Your task to perform on an android device: delete location history Image 0: 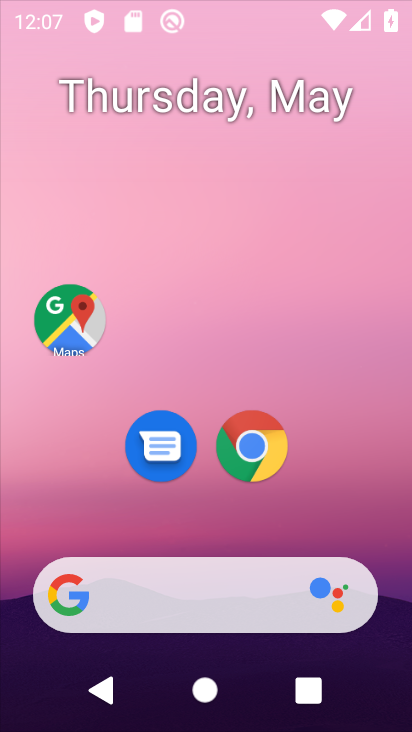
Step 0: press home button
Your task to perform on an android device: delete location history Image 1: 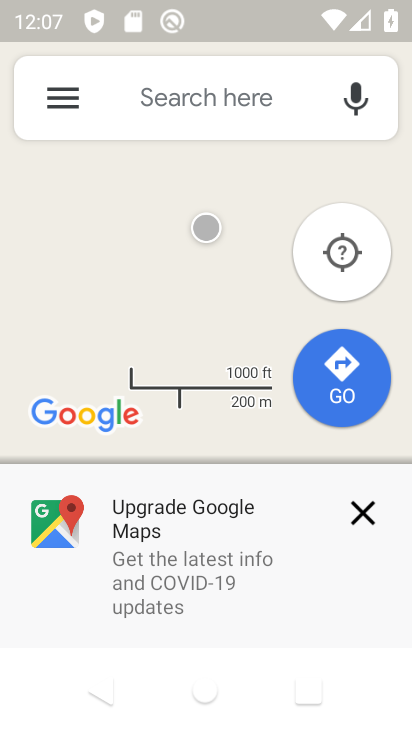
Step 1: click (94, 340)
Your task to perform on an android device: delete location history Image 2: 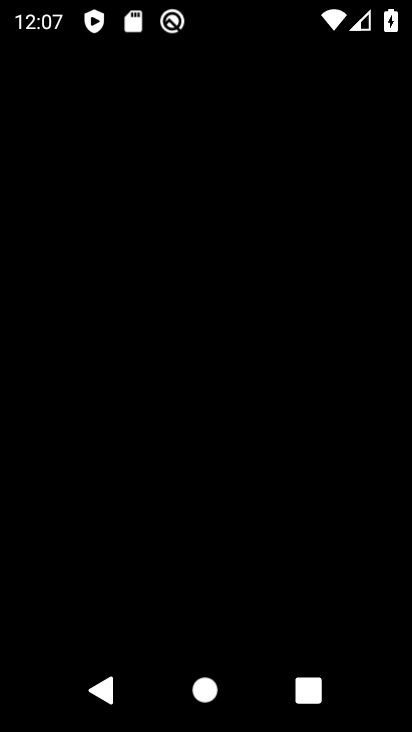
Step 2: click (95, 336)
Your task to perform on an android device: delete location history Image 3: 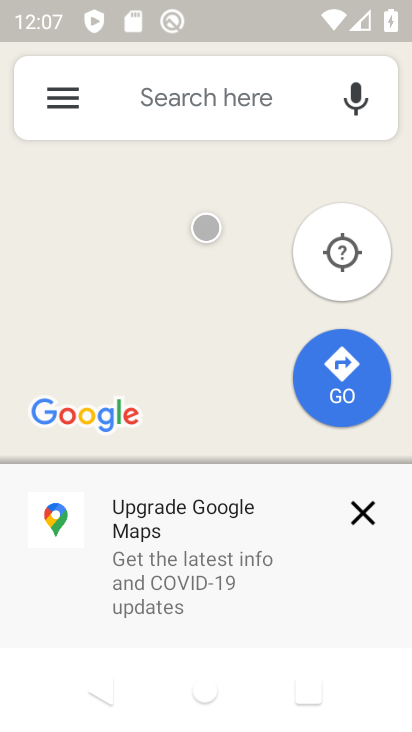
Step 3: click (54, 96)
Your task to perform on an android device: delete location history Image 4: 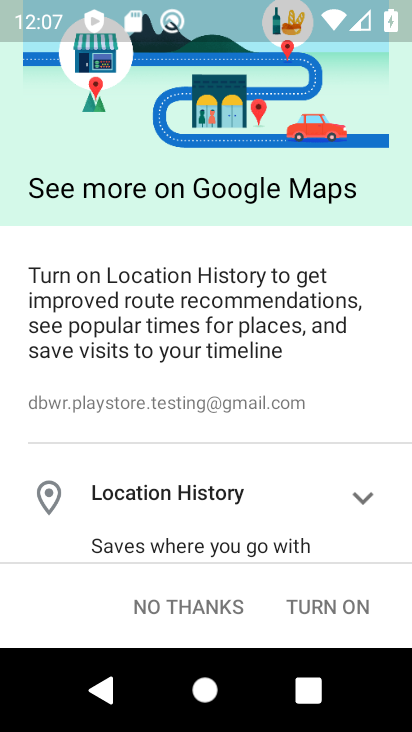
Step 4: click (161, 601)
Your task to perform on an android device: delete location history Image 5: 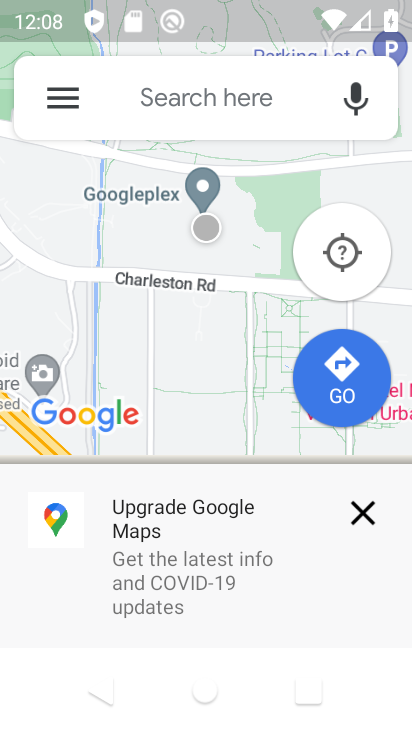
Step 5: click (46, 89)
Your task to perform on an android device: delete location history Image 6: 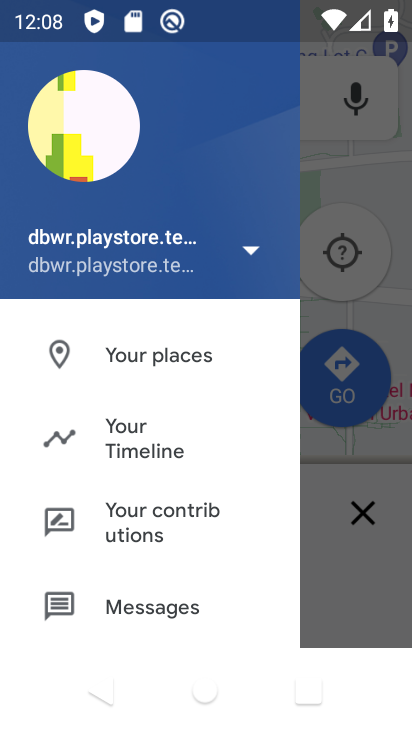
Step 6: click (164, 445)
Your task to perform on an android device: delete location history Image 7: 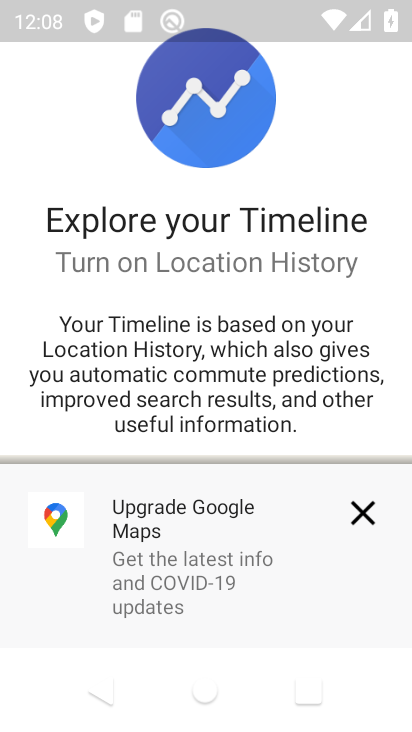
Step 7: click (364, 516)
Your task to perform on an android device: delete location history Image 8: 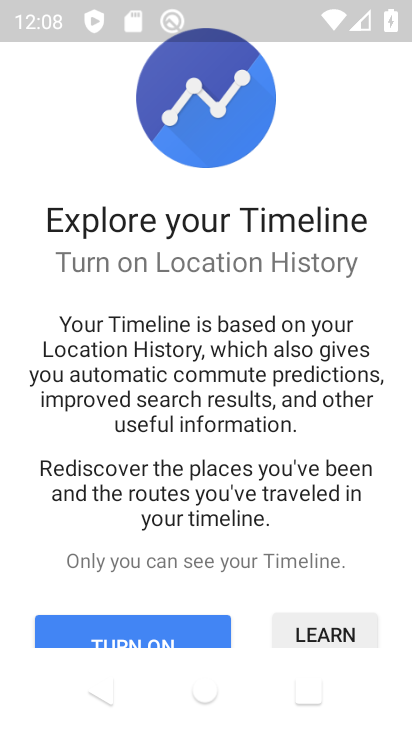
Step 8: drag from (278, 576) to (265, 255)
Your task to perform on an android device: delete location history Image 9: 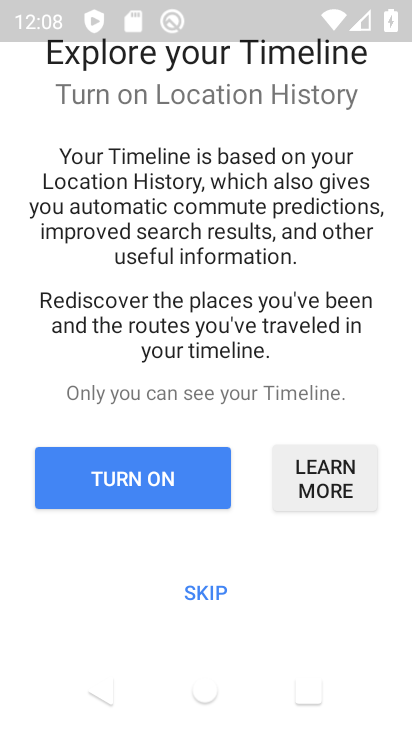
Step 9: click (200, 586)
Your task to perform on an android device: delete location history Image 10: 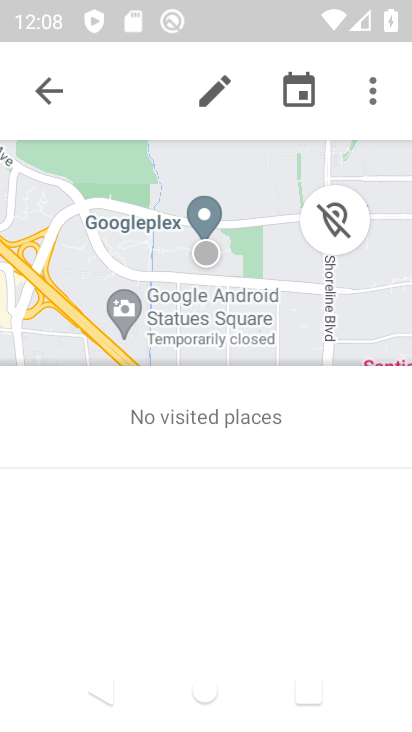
Step 10: click (363, 93)
Your task to perform on an android device: delete location history Image 11: 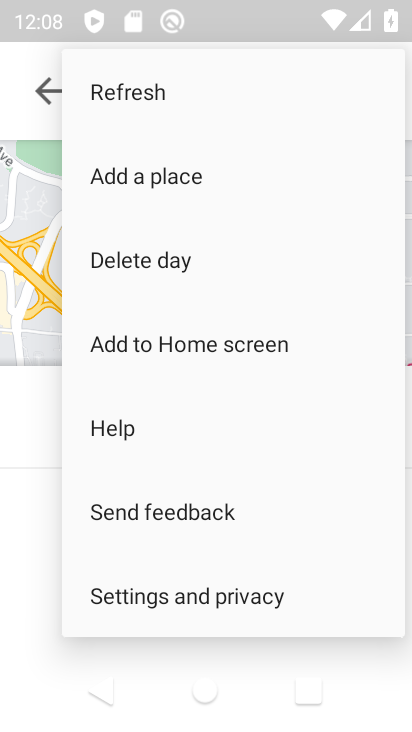
Step 11: click (186, 595)
Your task to perform on an android device: delete location history Image 12: 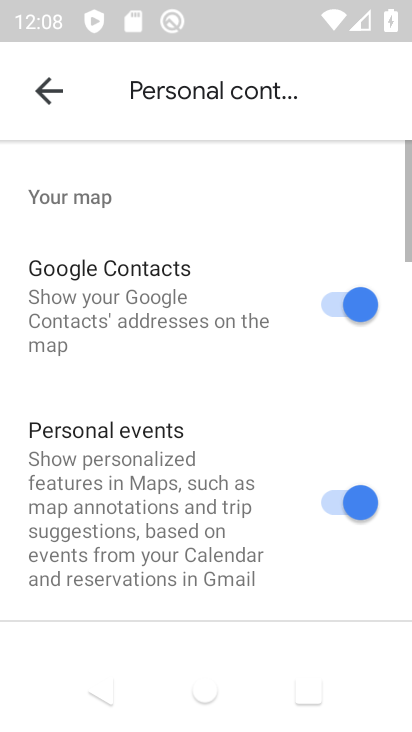
Step 12: drag from (211, 601) to (286, 57)
Your task to perform on an android device: delete location history Image 13: 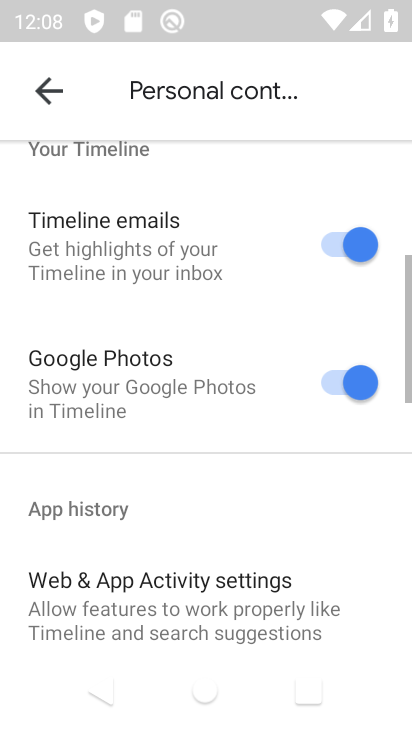
Step 13: drag from (286, 515) to (286, 170)
Your task to perform on an android device: delete location history Image 14: 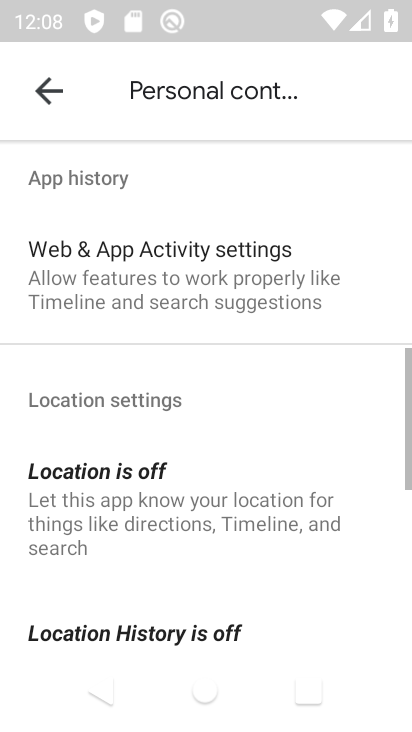
Step 14: drag from (286, 499) to (286, 265)
Your task to perform on an android device: delete location history Image 15: 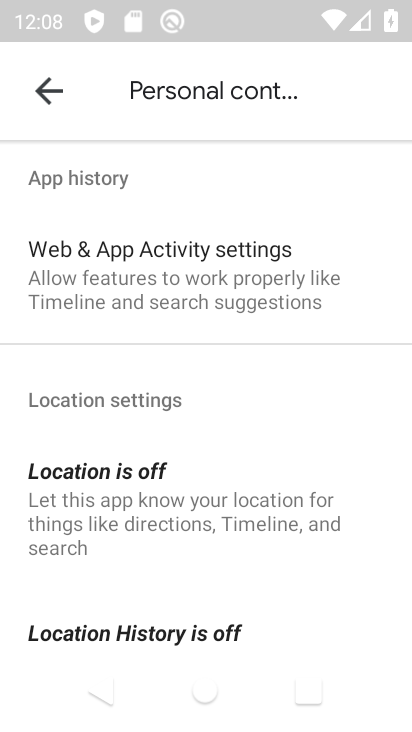
Step 15: drag from (276, 439) to (253, 79)
Your task to perform on an android device: delete location history Image 16: 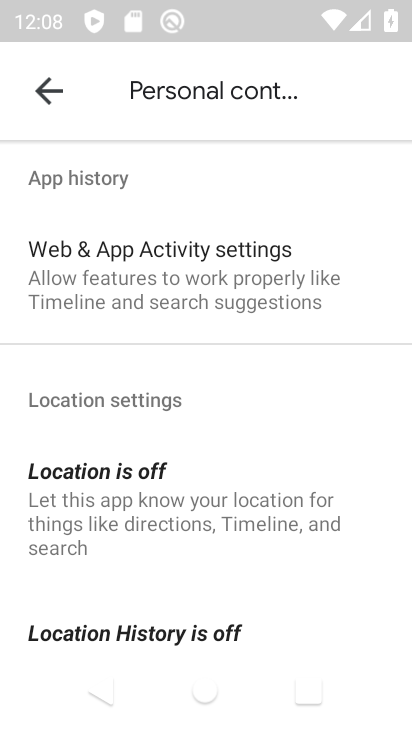
Step 16: drag from (223, 555) to (223, 104)
Your task to perform on an android device: delete location history Image 17: 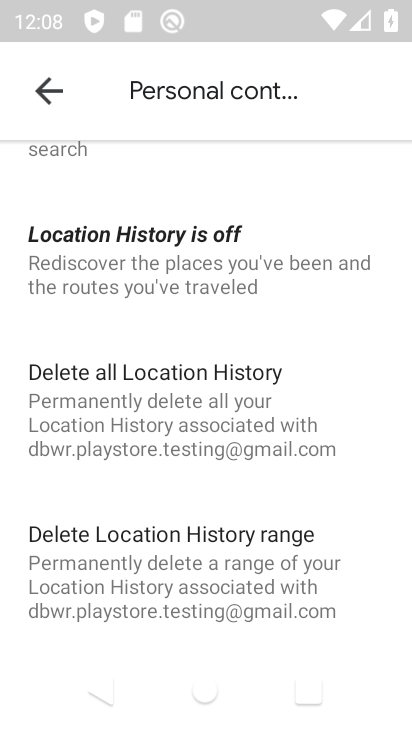
Step 17: click (216, 360)
Your task to perform on an android device: delete location history Image 18: 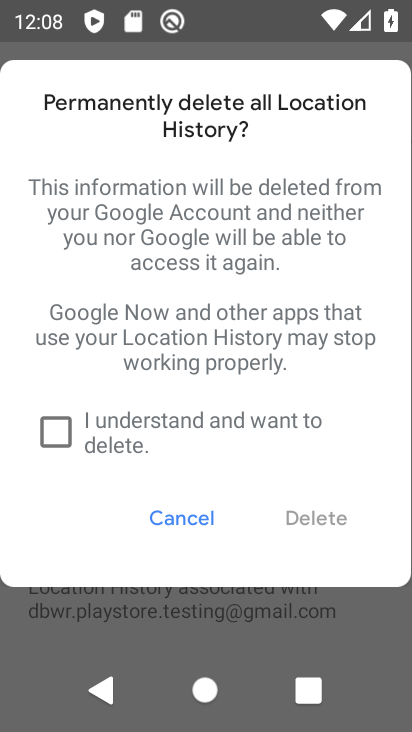
Step 18: click (217, 438)
Your task to perform on an android device: delete location history Image 19: 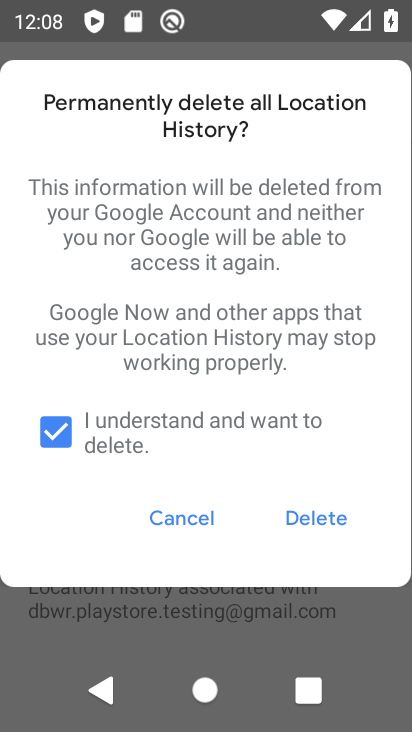
Step 19: click (289, 510)
Your task to perform on an android device: delete location history Image 20: 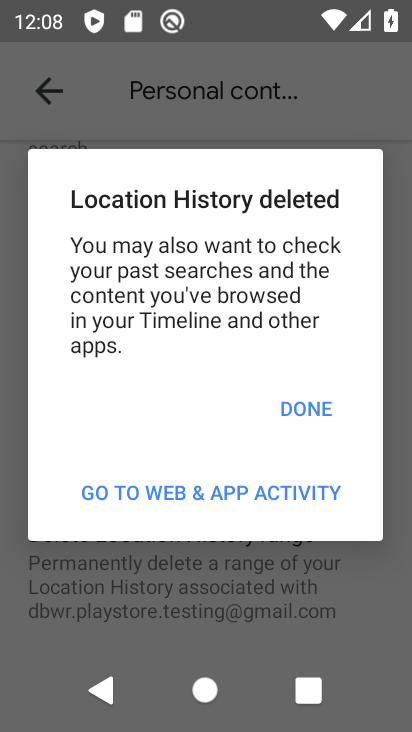
Step 20: click (321, 418)
Your task to perform on an android device: delete location history Image 21: 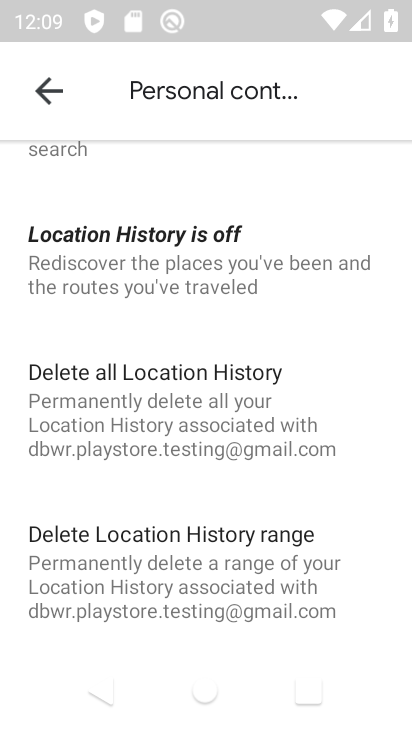
Step 21: task complete